Your task to perform on an android device: Go to eBay Image 0: 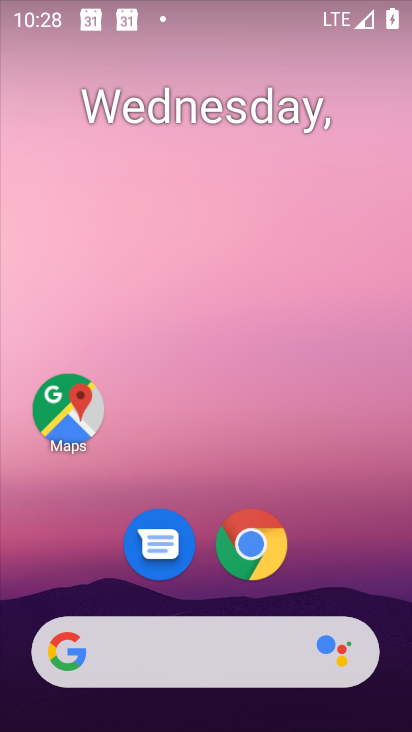
Step 0: click (255, 541)
Your task to perform on an android device: Go to eBay Image 1: 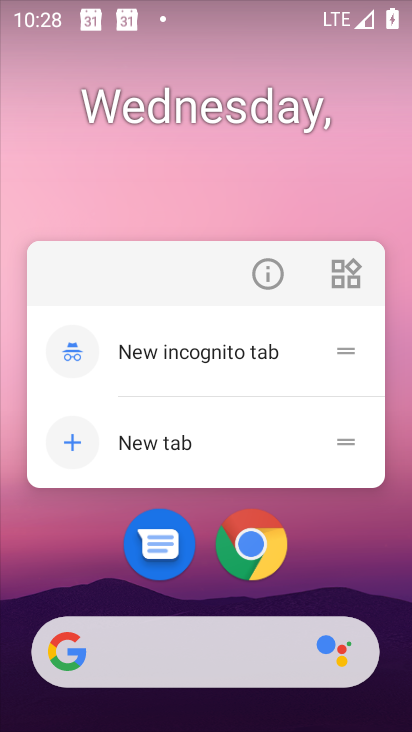
Step 1: click (254, 541)
Your task to perform on an android device: Go to eBay Image 2: 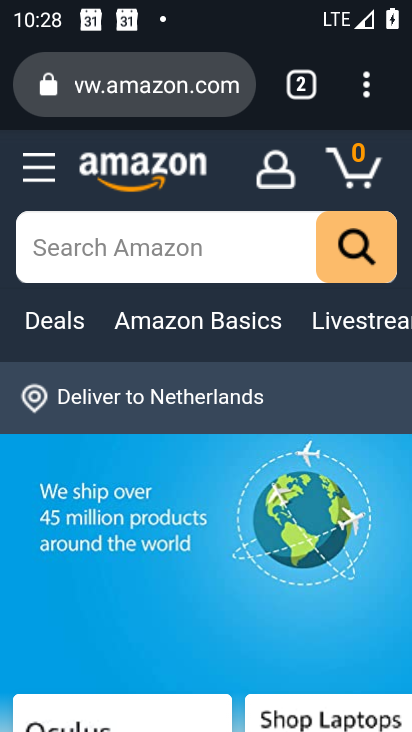
Step 2: click (134, 71)
Your task to perform on an android device: Go to eBay Image 3: 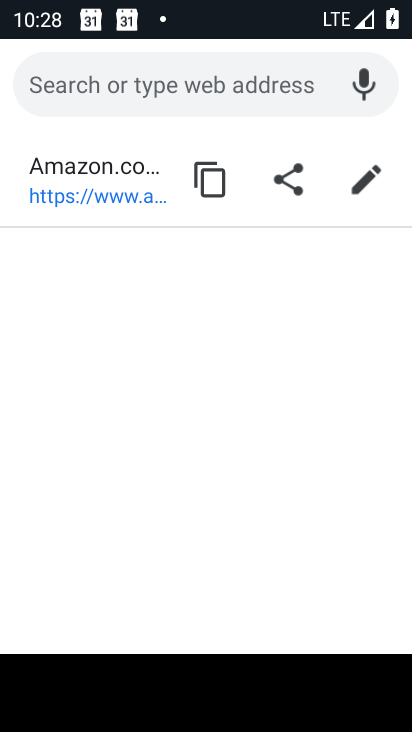
Step 3: type "ebay"
Your task to perform on an android device: Go to eBay Image 4: 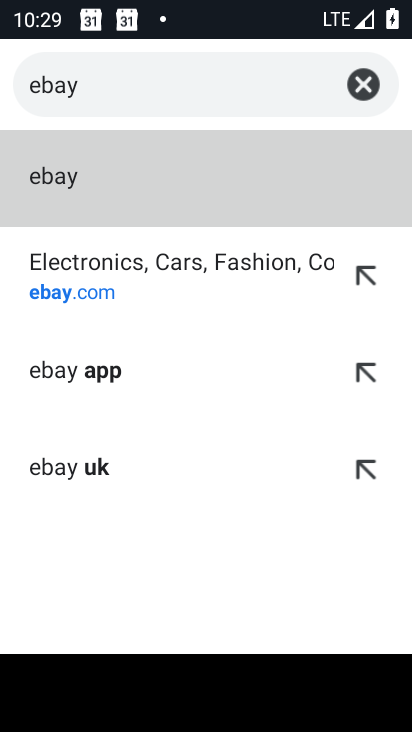
Step 4: click (186, 186)
Your task to perform on an android device: Go to eBay Image 5: 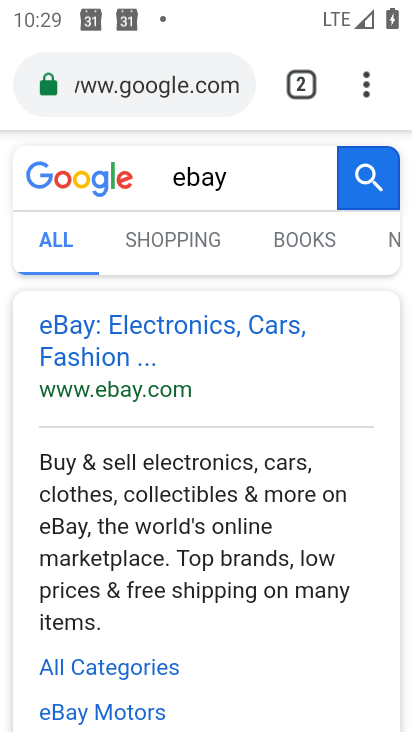
Step 5: task complete